Your task to perform on an android device: change timer sound Image 0: 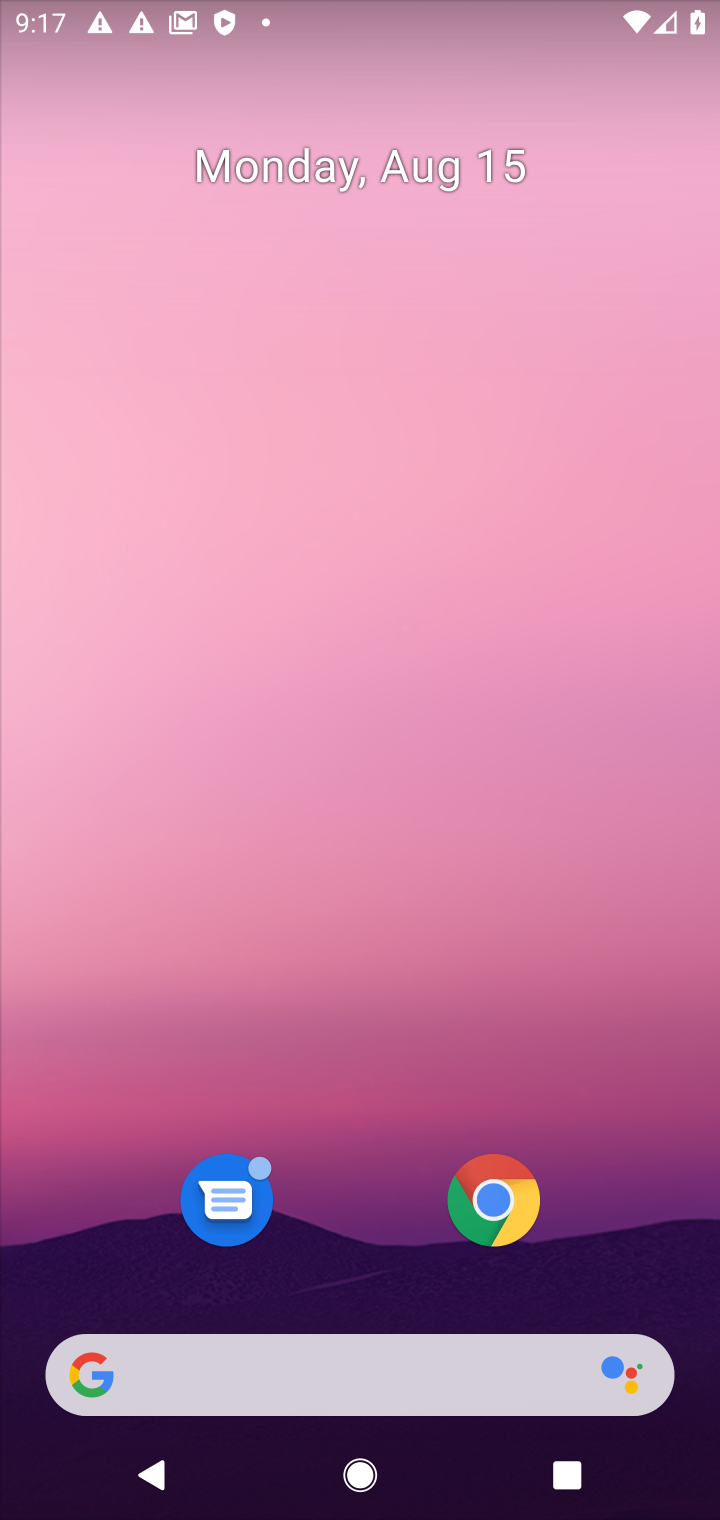
Step 0: drag from (341, 1245) to (325, 337)
Your task to perform on an android device: change timer sound Image 1: 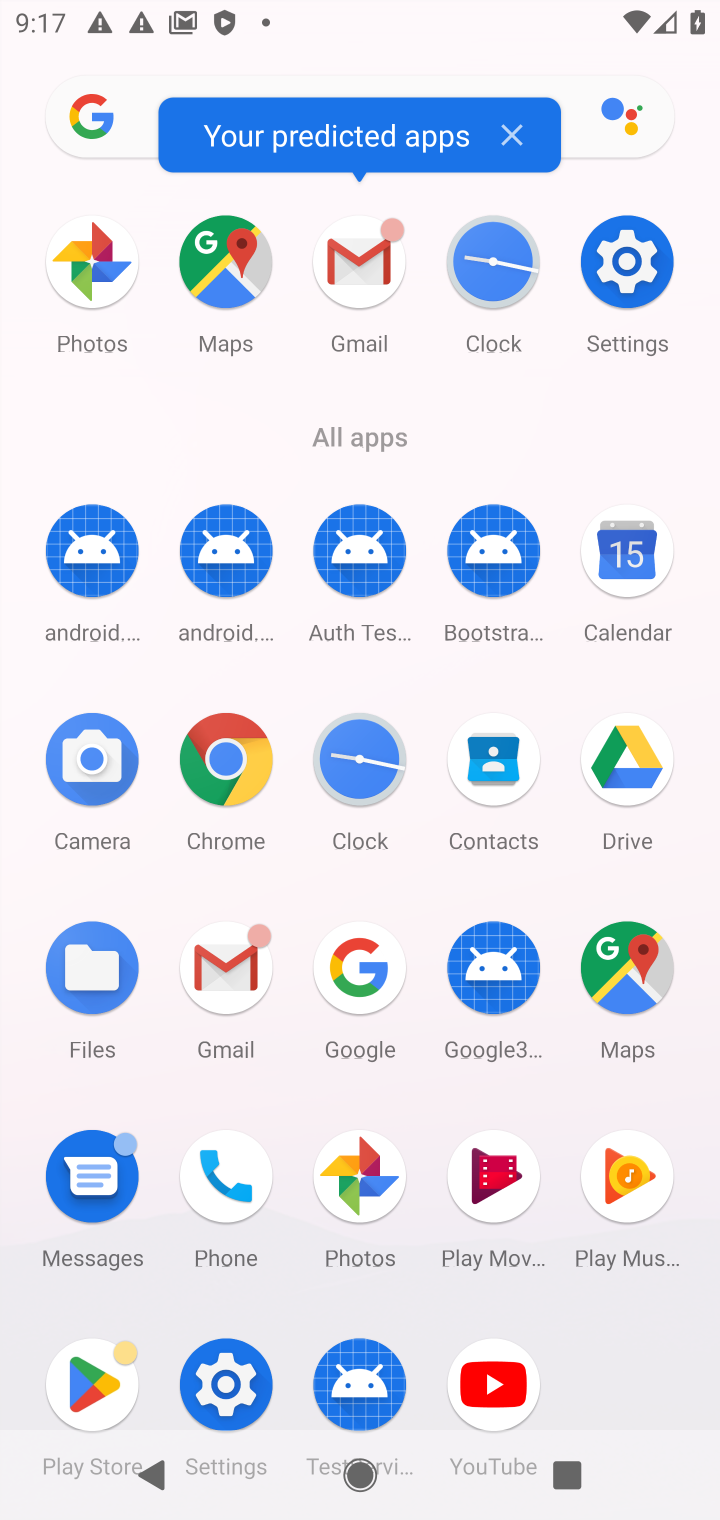
Step 1: click (374, 788)
Your task to perform on an android device: change timer sound Image 2: 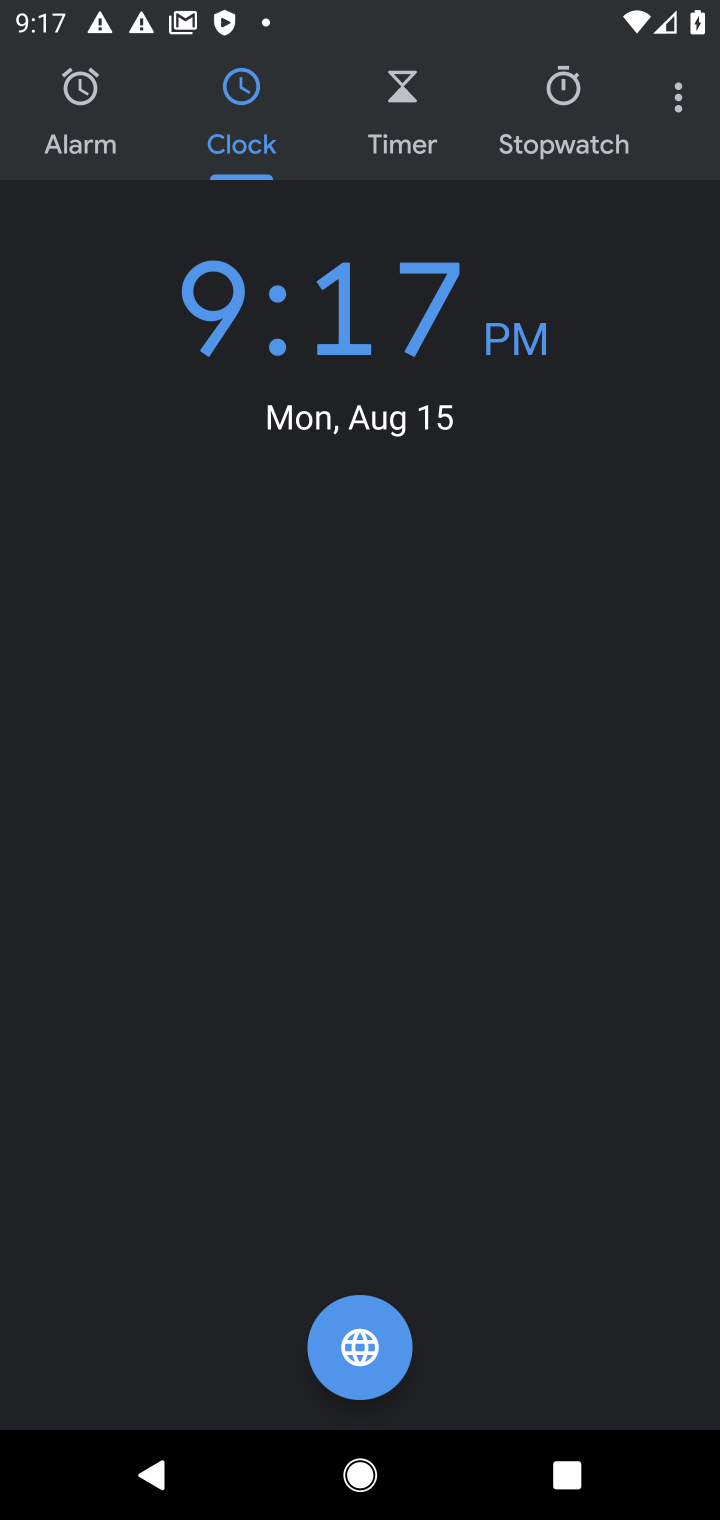
Step 2: click (386, 118)
Your task to perform on an android device: change timer sound Image 3: 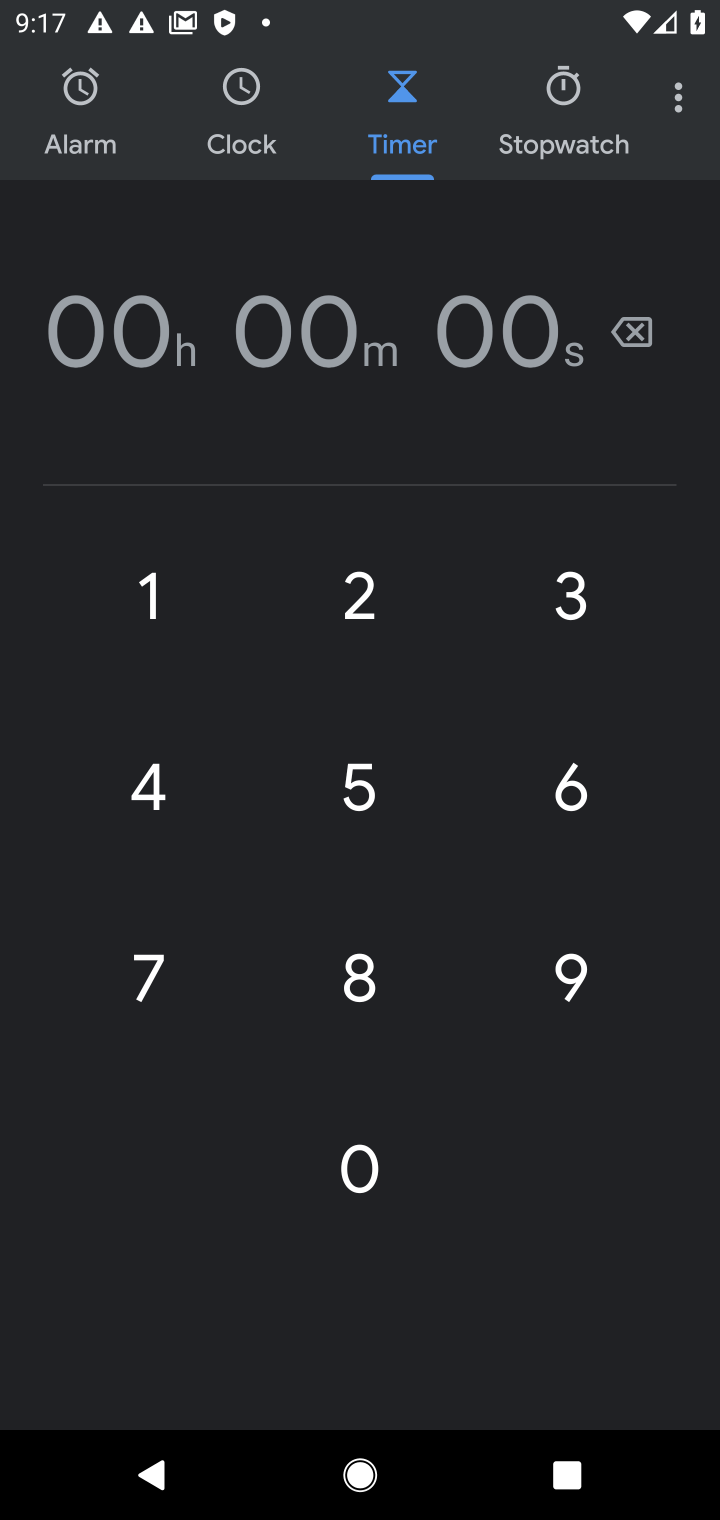
Step 3: type "11"
Your task to perform on an android device: change timer sound Image 4: 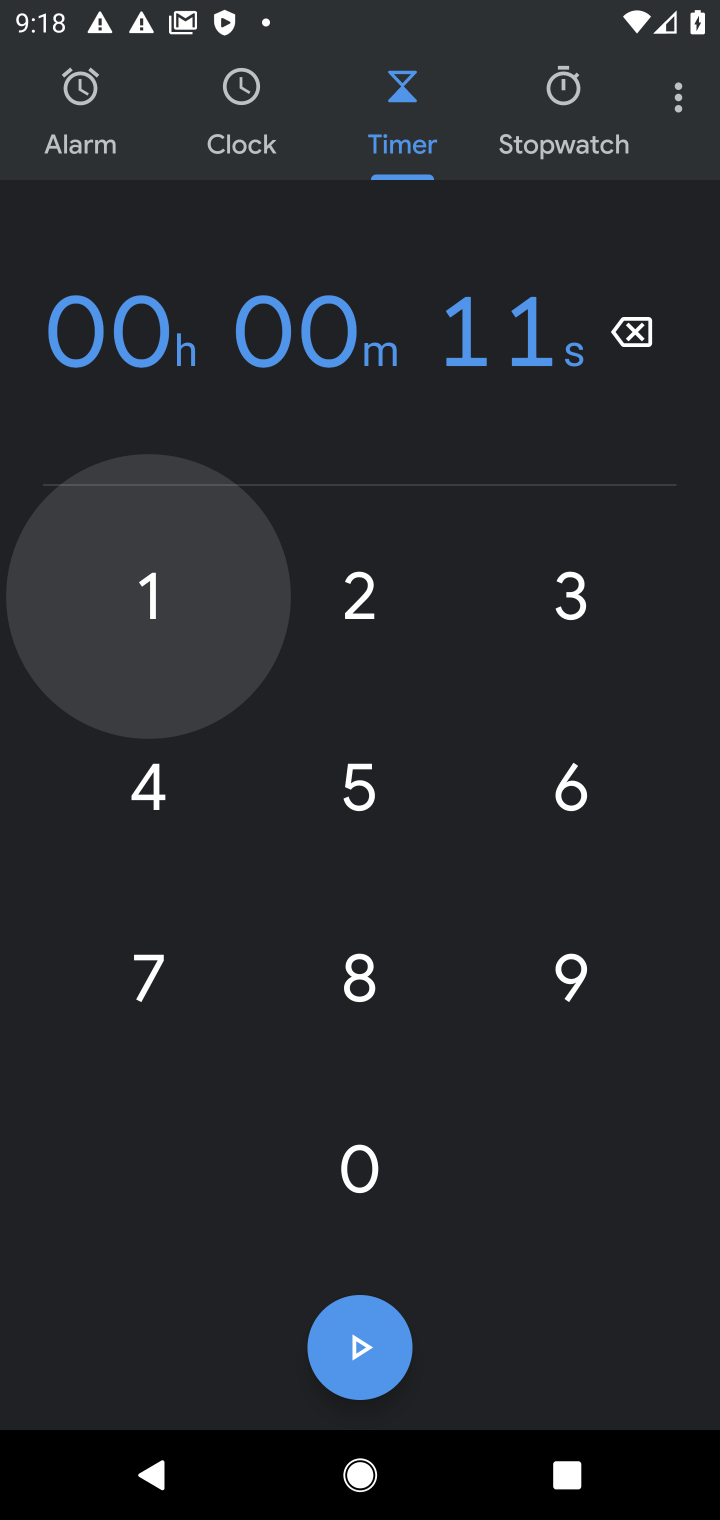
Step 4: click (679, 95)
Your task to perform on an android device: change timer sound Image 5: 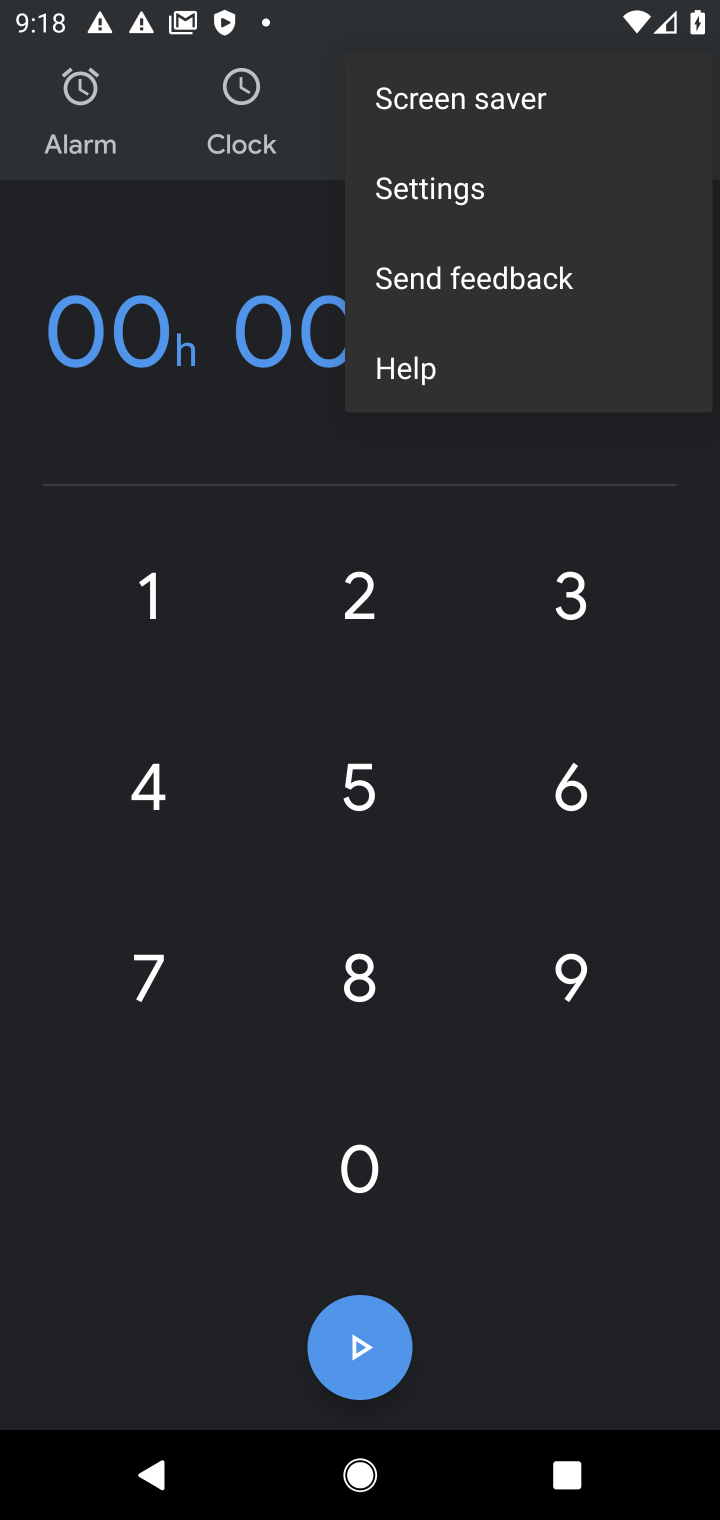
Step 5: click (496, 186)
Your task to perform on an android device: change timer sound Image 6: 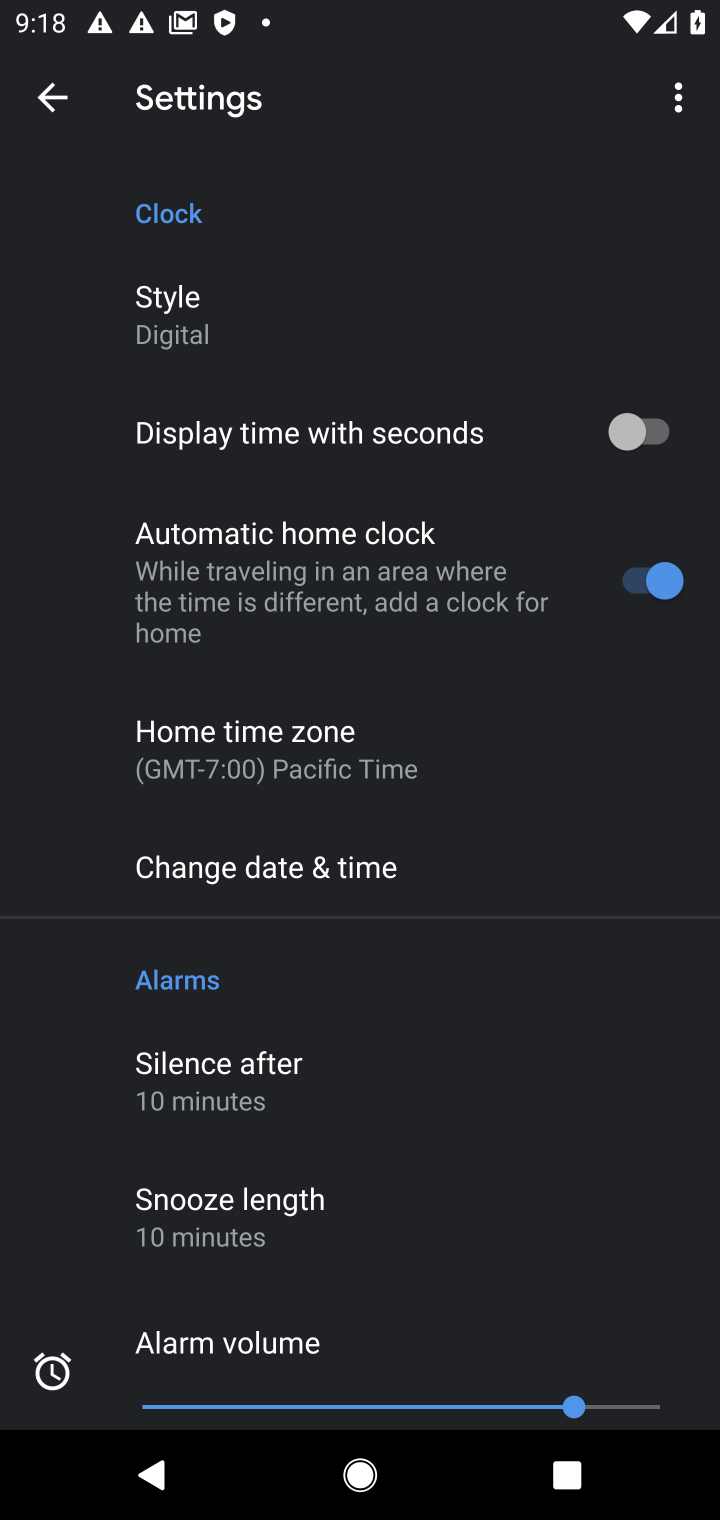
Step 6: drag from (426, 1220) to (521, 371)
Your task to perform on an android device: change timer sound Image 7: 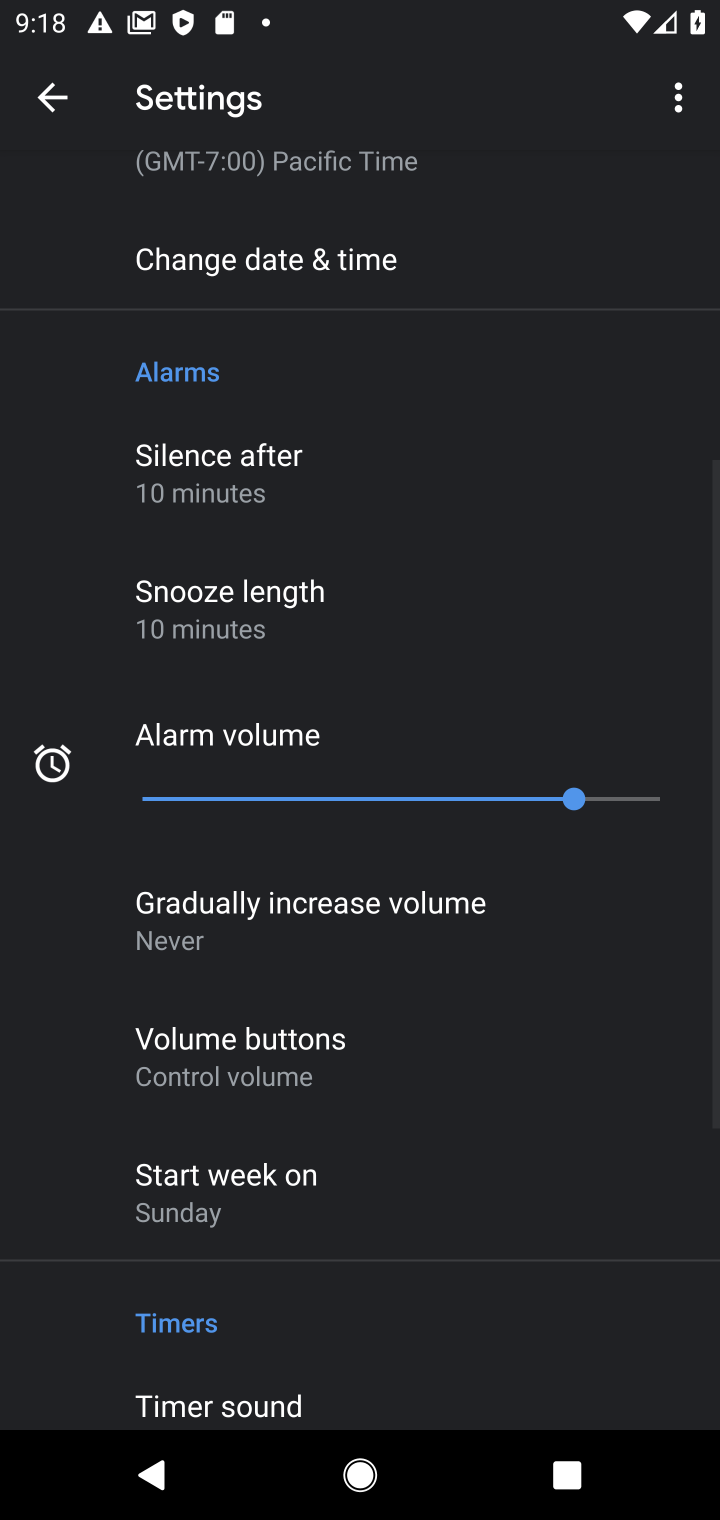
Step 7: drag from (474, 1239) to (476, 491)
Your task to perform on an android device: change timer sound Image 8: 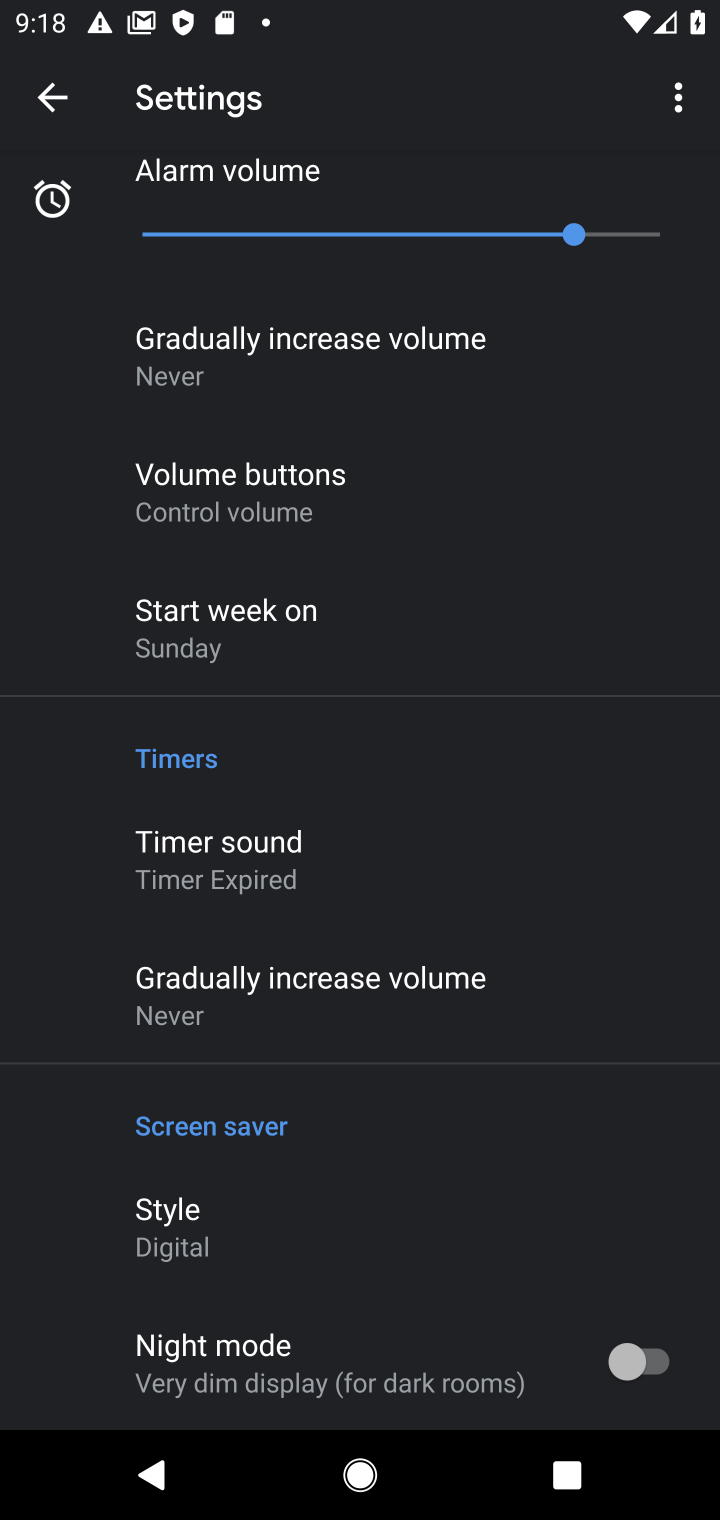
Step 8: click (260, 875)
Your task to perform on an android device: change timer sound Image 9: 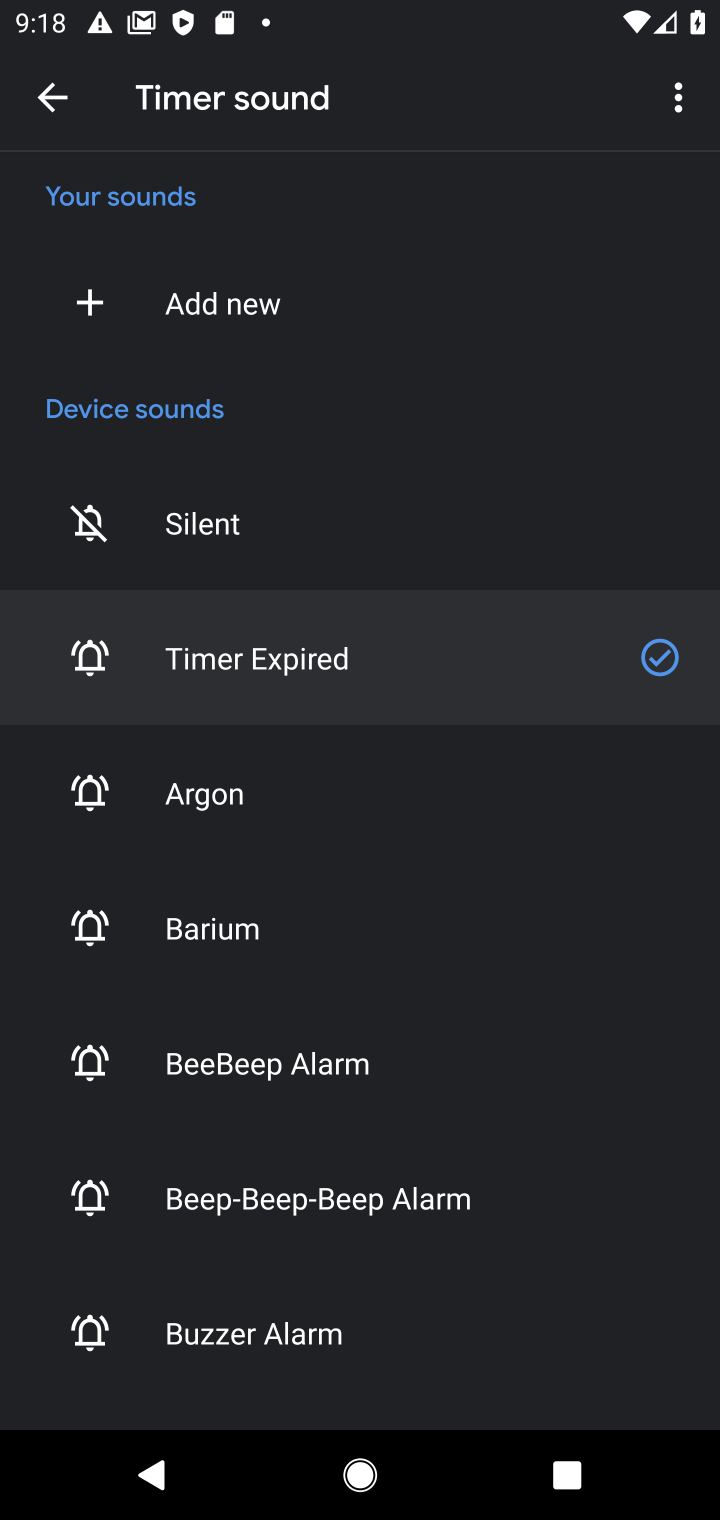
Step 9: click (247, 1018)
Your task to perform on an android device: change timer sound Image 10: 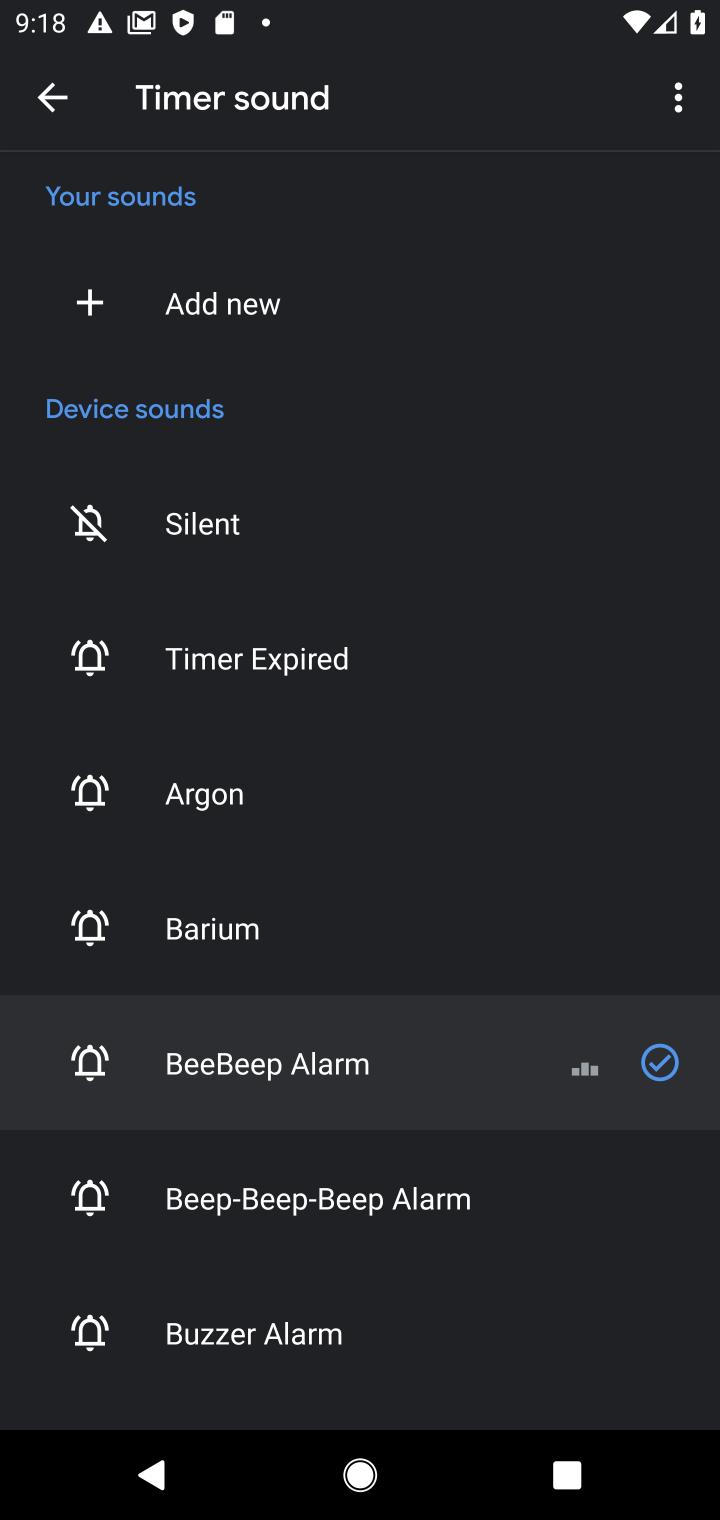
Step 10: task complete